Your task to perform on an android device: open app "The Home Depot" (install if not already installed) and enter user name: "taproot@icloud.com" and password: "executions" Image 0: 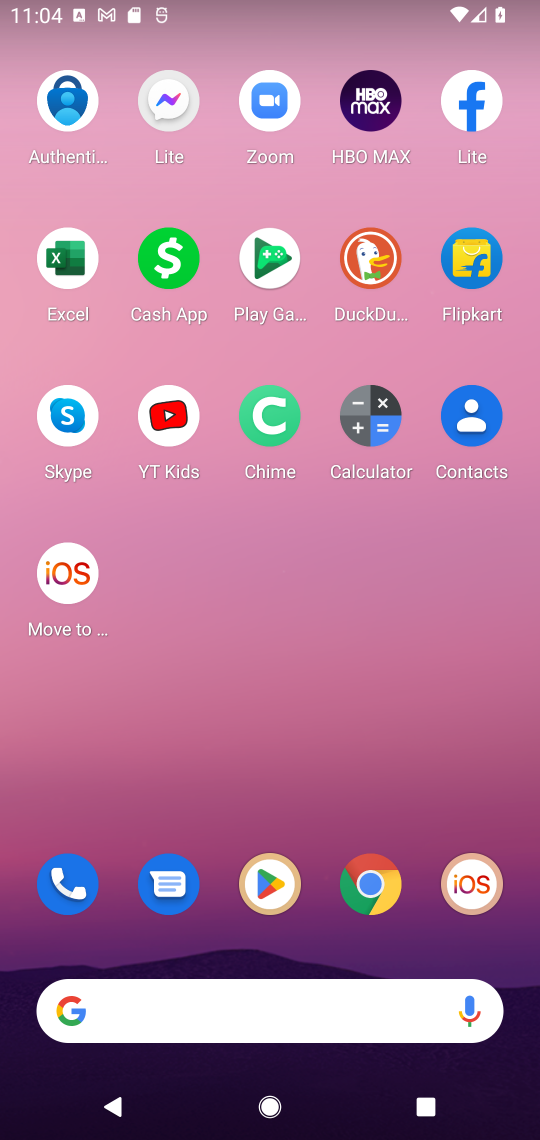
Step 0: press home button
Your task to perform on an android device: open app "The Home Depot" (install if not already installed) and enter user name: "taproot@icloud.com" and password: "executions" Image 1: 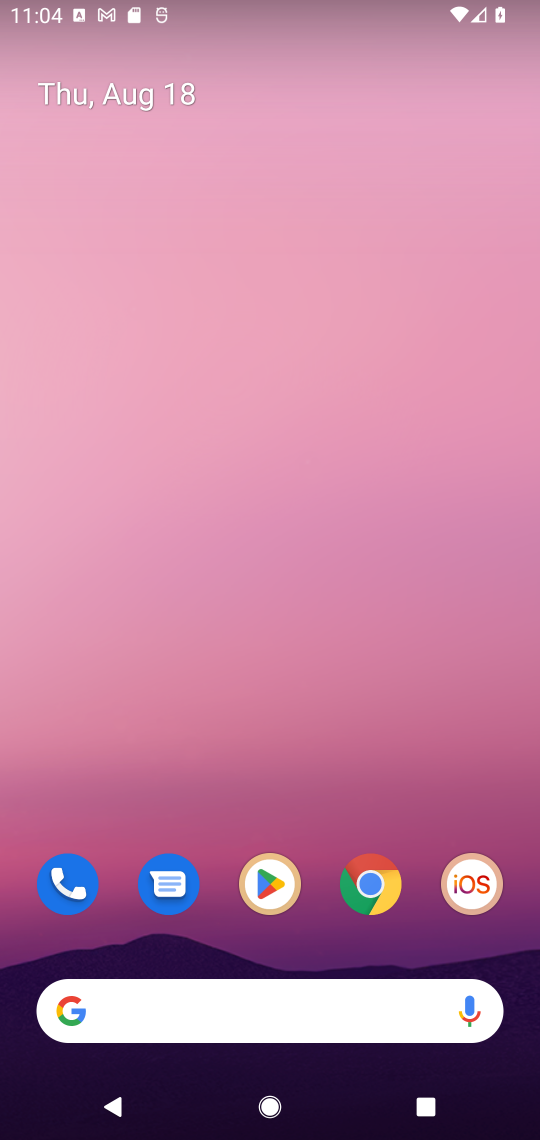
Step 1: drag from (193, 993) to (301, 51)
Your task to perform on an android device: open app "The Home Depot" (install if not already installed) and enter user name: "taproot@icloud.com" and password: "executions" Image 2: 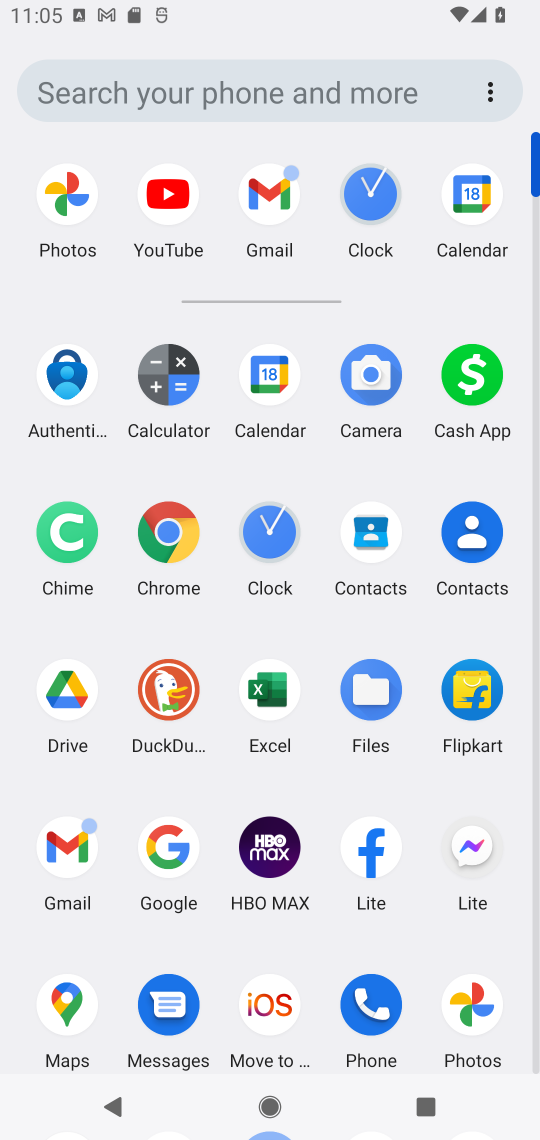
Step 2: drag from (216, 956) to (271, 563)
Your task to perform on an android device: open app "The Home Depot" (install if not already installed) and enter user name: "taproot@icloud.com" and password: "executions" Image 3: 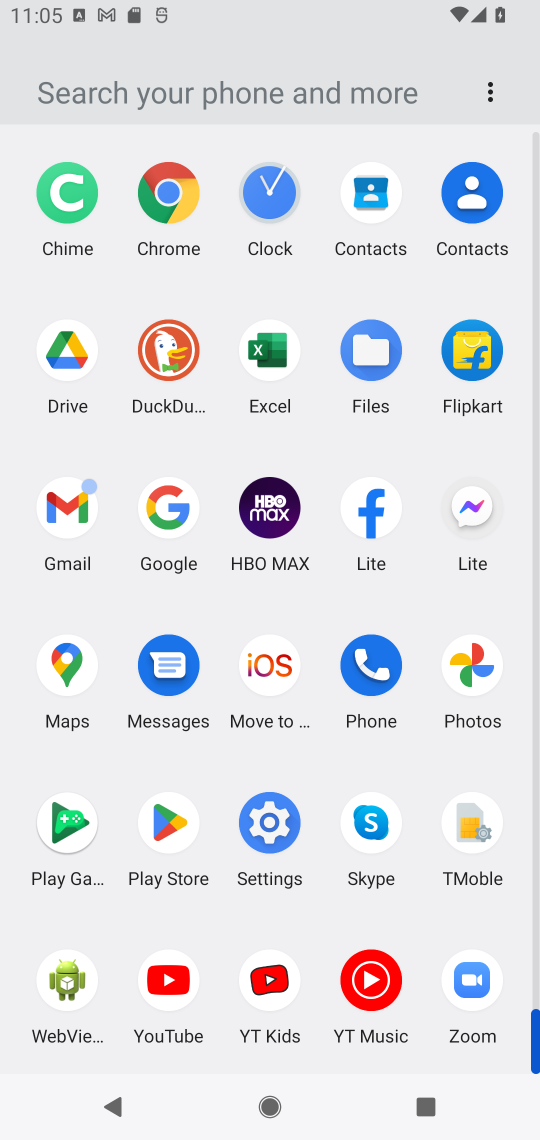
Step 3: click (175, 823)
Your task to perform on an android device: open app "The Home Depot" (install if not already installed) and enter user name: "taproot@icloud.com" and password: "executions" Image 4: 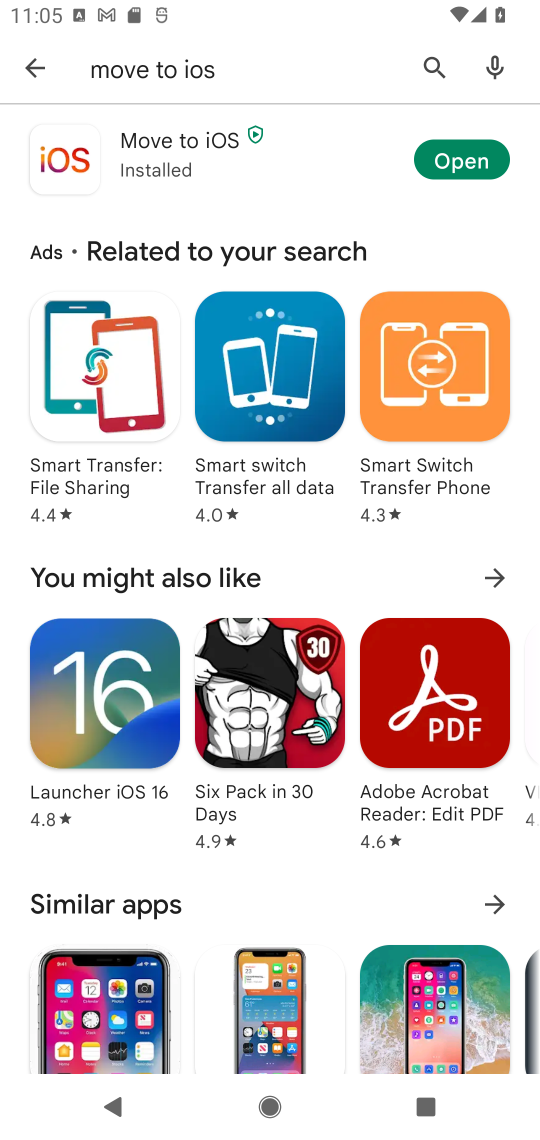
Step 4: press back button
Your task to perform on an android device: open app "The Home Depot" (install if not already installed) and enter user name: "taproot@icloud.com" and password: "executions" Image 5: 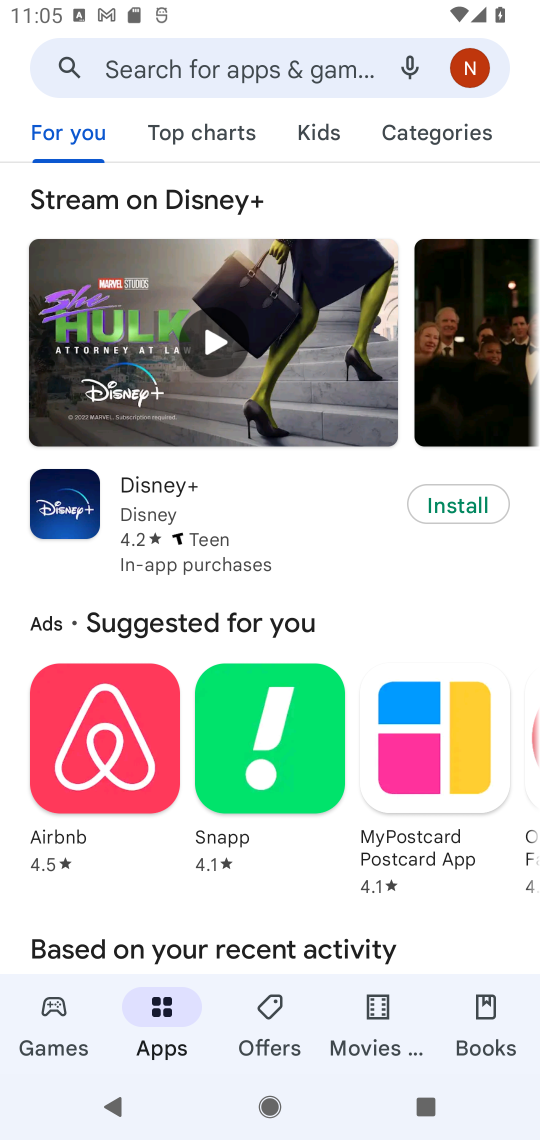
Step 5: click (240, 63)
Your task to perform on an android device: open app "The Home Depot" (install if not already installed) and enter user name: "taproot@icloud.com" and password: "executions" Image 6: 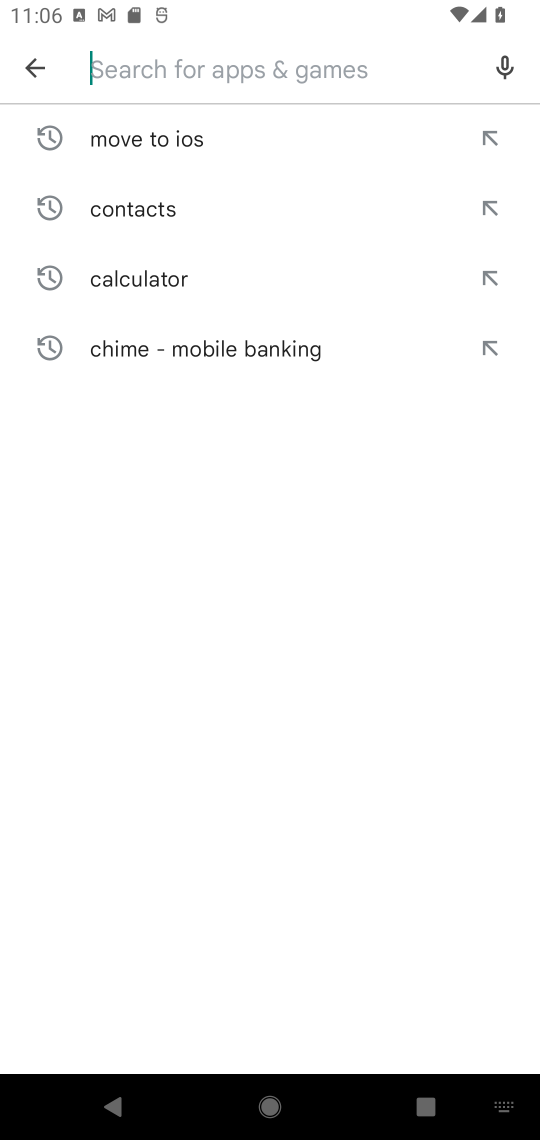
Step 6: type "The Home Depot"
Your task to perform on an android device: open app "The Home Depot" (install if not already installed) and enter user name: "taproot@icloud.com" and password: "executions" Image 7: 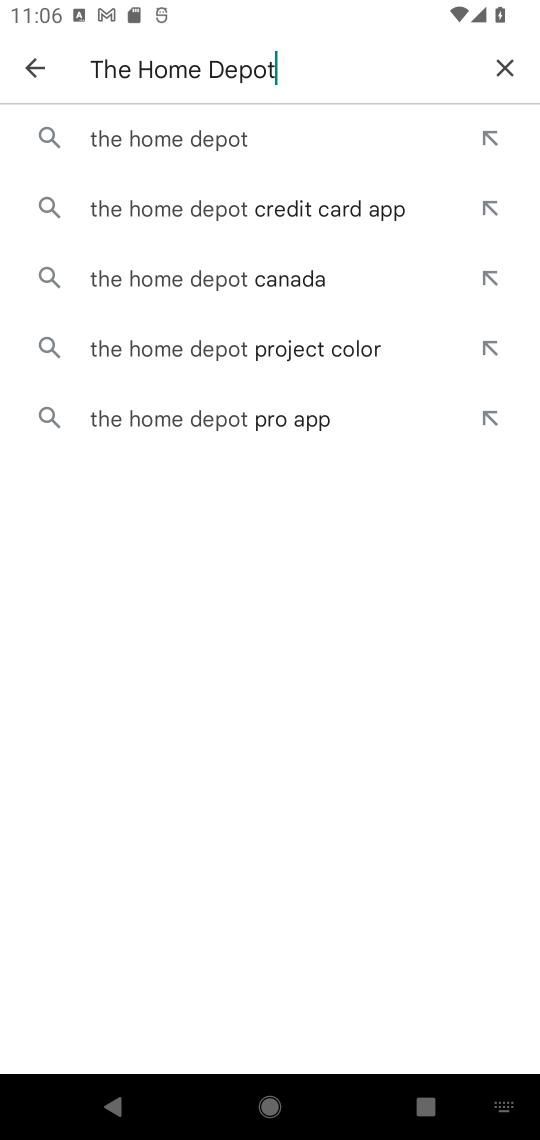
Step 7: click (174, 134)
Your task to perform on an android device: open app "The Home Depot" (install if not already installed) and enter user name: "taproot@icloud.com" and password: "executions" Image 8: 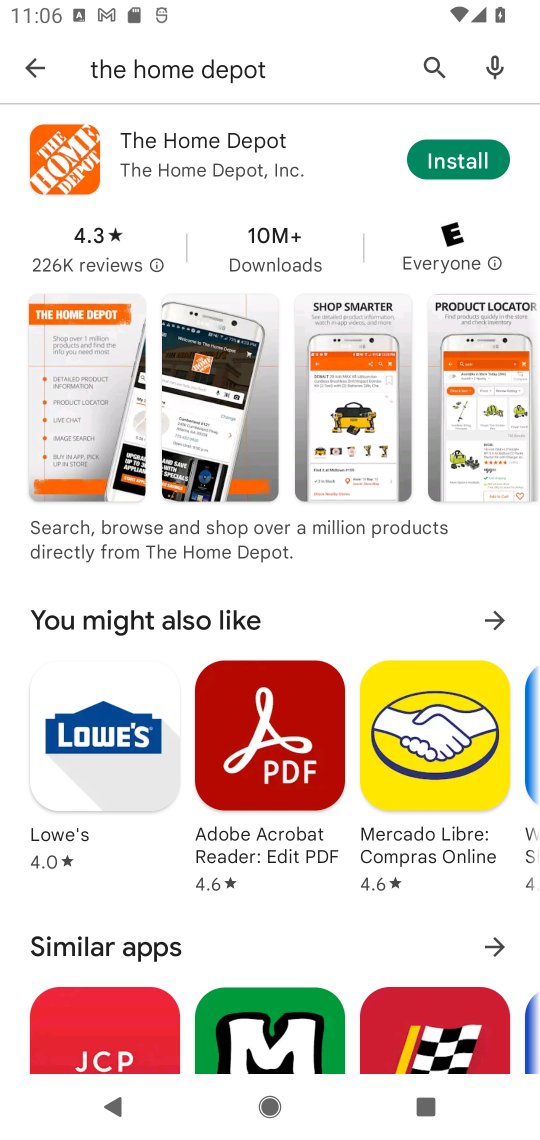
Step 8: click (458, 163)
Your task to perform on an android device: open app "The Home Depot" (install if not already installed) and enter user name: "taproot@icloud.com" and password: "executions" Image 9: 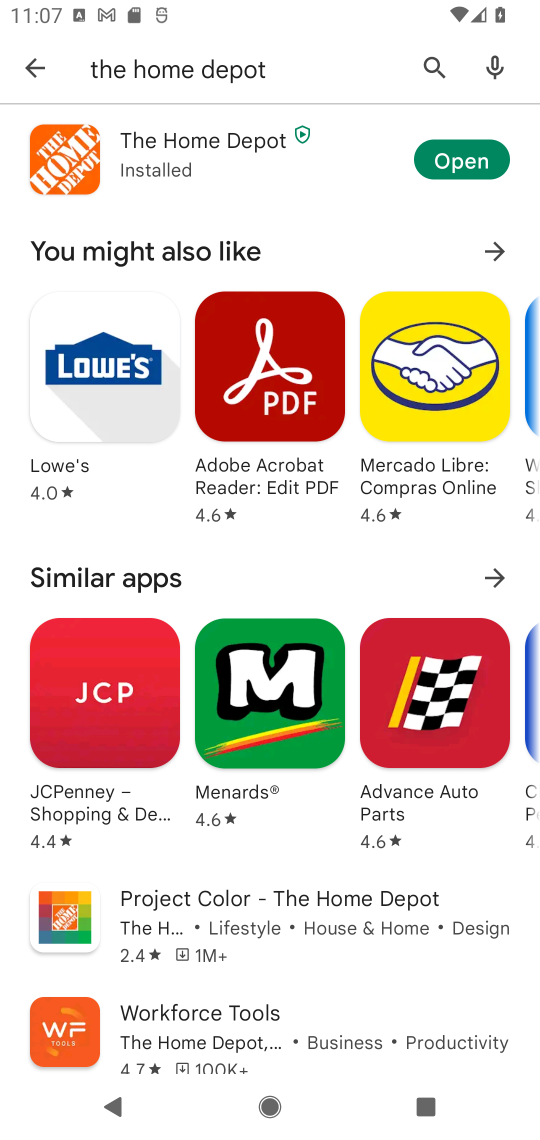
Step 9: click (454, 162)
Your task to perform on an android device: open app "The Home Depot" (install if not already installed) and enter user name: "taproot@icloud.com" and password: "executions" Image 10: 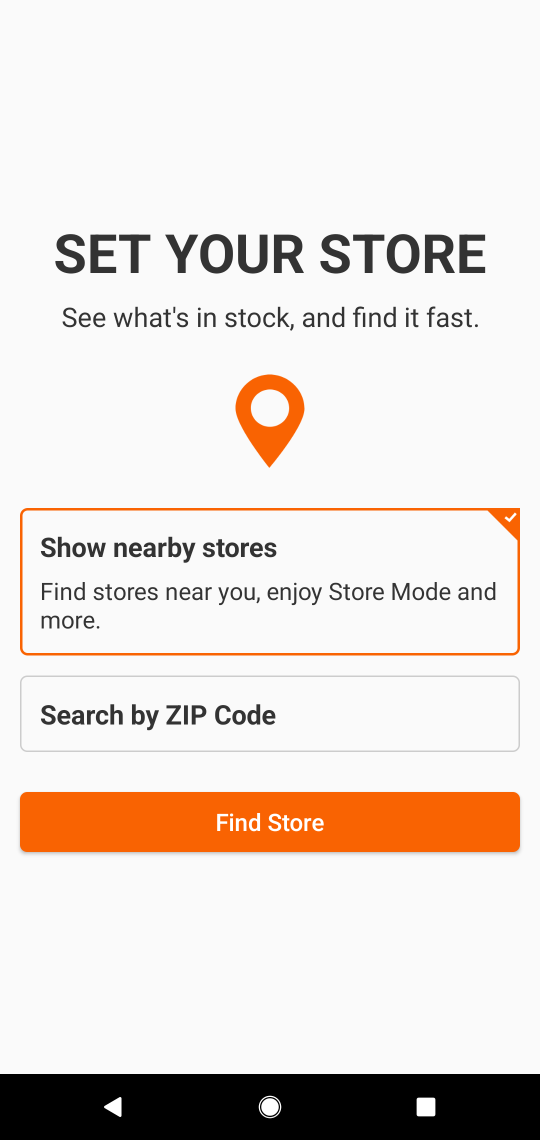
Step 10: click (272, 815)
Your task to perform on an android device: open app "The Home Depot" (install if not already installed) and enter user name: "taproot@icloud.com" and password: "executions" Image 11: 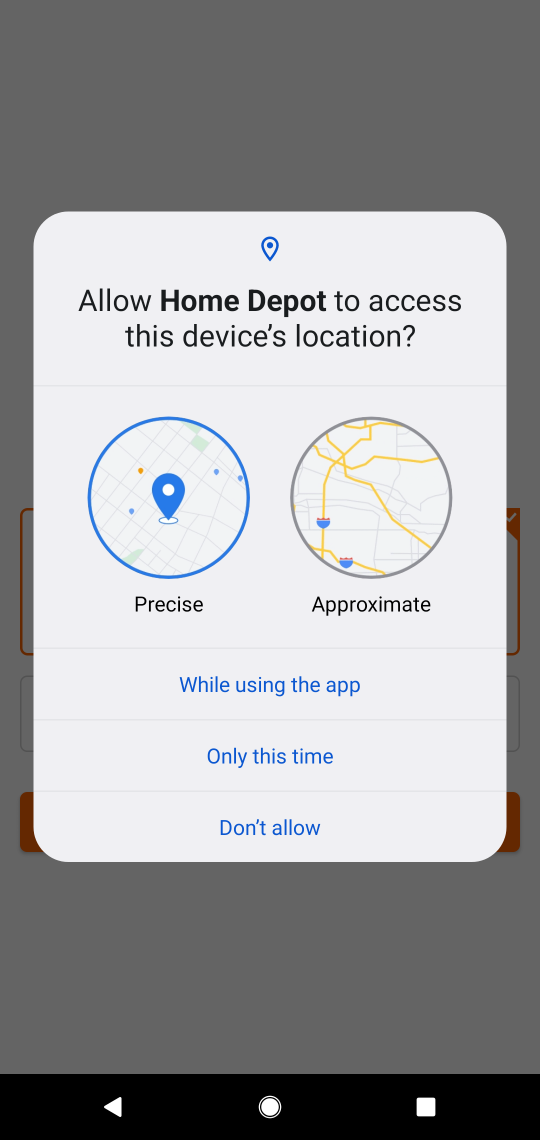
Step 11: click (320, 694)
Your task to perform on an android device: open app "The Home Depot" (install if not already installed) and enter user name: "taproot@icloud.com" and password: "executions" Image 12: 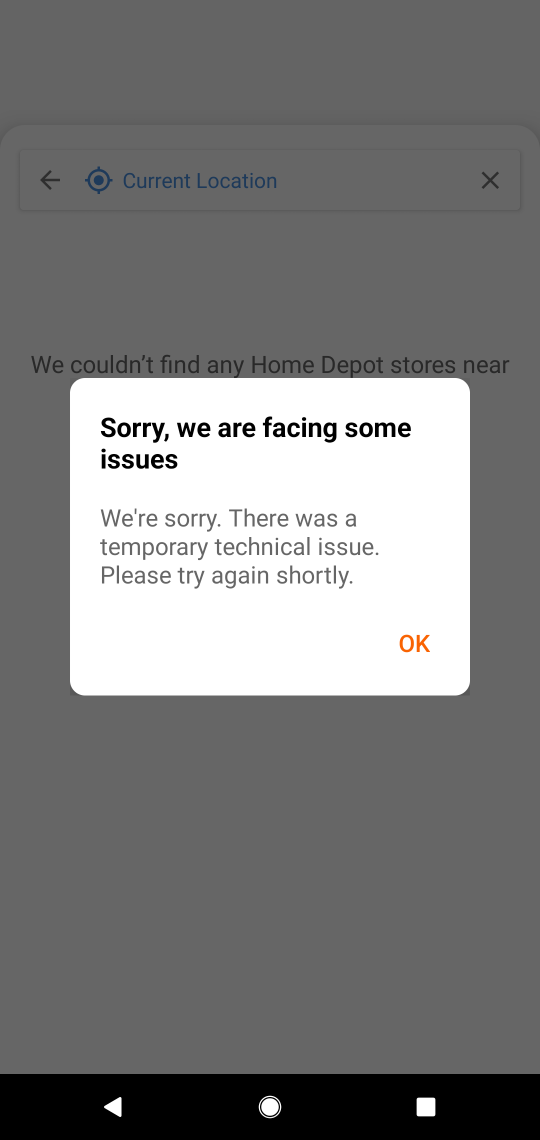
Step 12: click (423, 645)
Your task to perform on an android device: open app "The Home Depot" (install if not already installed) and enter user name: "taproot@icloud.com" and password: "executions" Image 13: 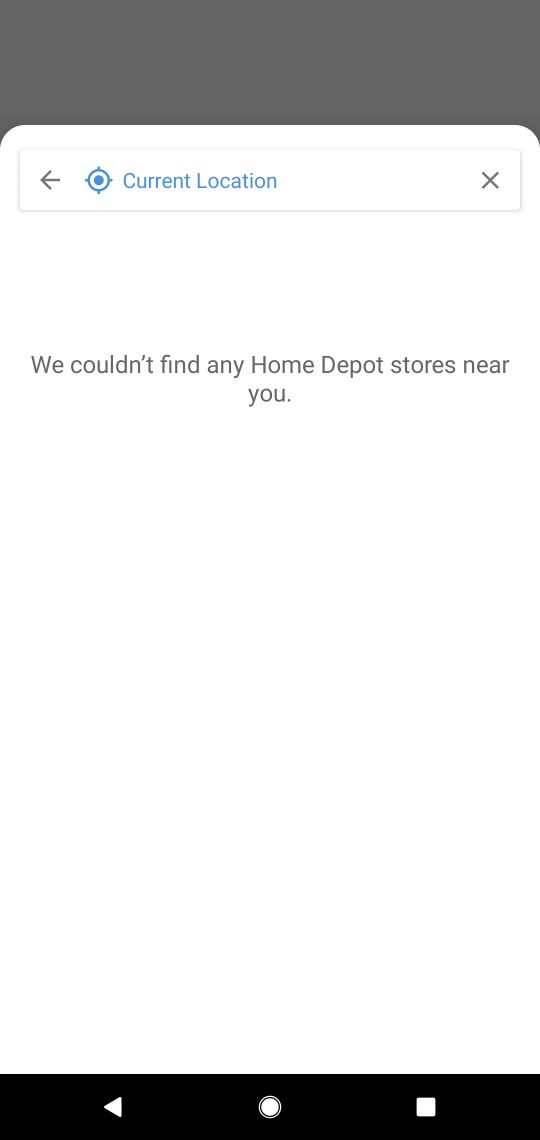
Step 13: click (201, 194)
Your task to perform on an android device: open app "The Home Depot" (install if not already installed) and enter user name: "taproot@icloud.com" and password: "executions" Image 14: 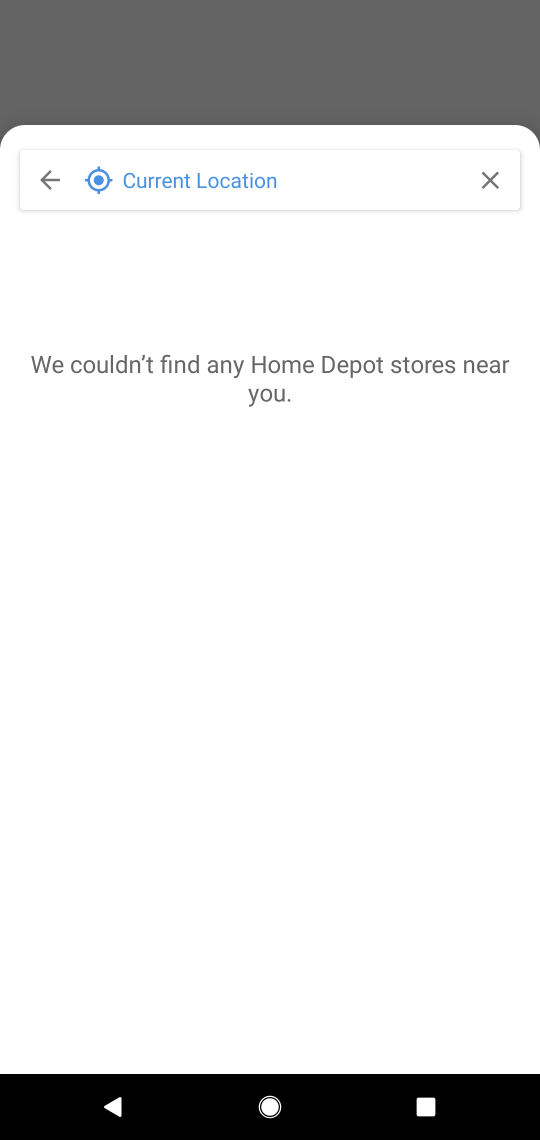
Step 14: click (201, 195)
Your task to perform on an android device: open app "The Home Depot" (install if not already installed) and enter user name: "taproot@icloud.com" and password: "executions" Image 15: 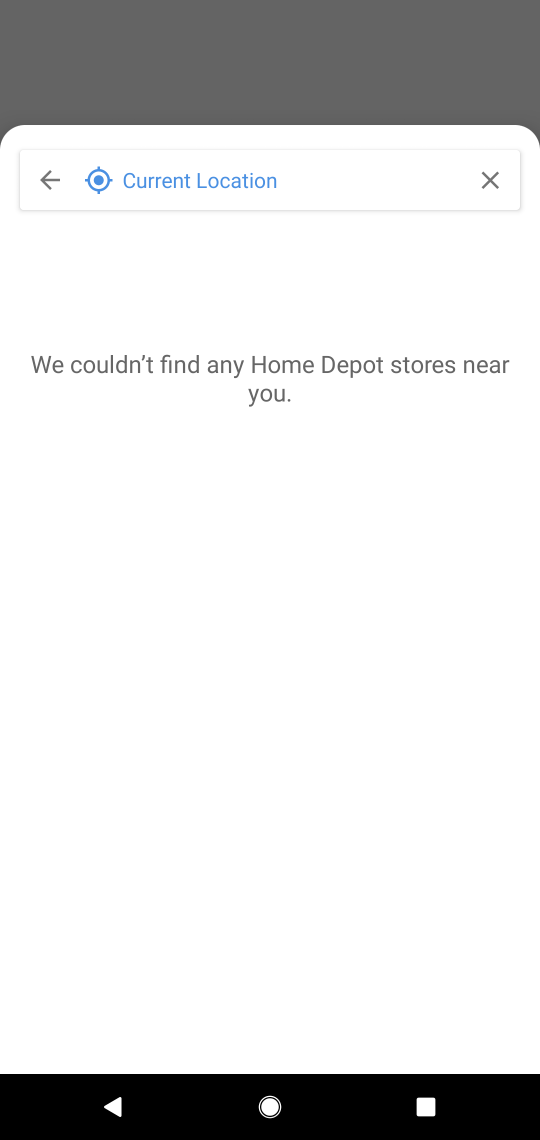
Step 15: click (405, 369)
Your task to perform on an android device: open app "The Home Depot" (install if not already installed) and enter user name: "taproot@icloud.com" and password: "executions" Image 16: 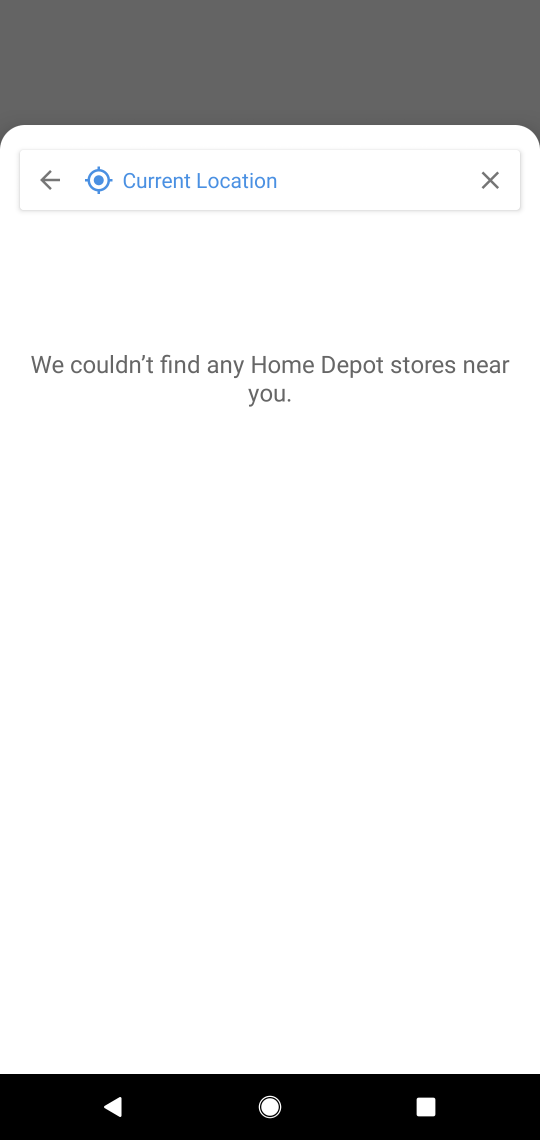
Step 16: press back button
Your task to perform on an android device: open app "The Home Depot" (install if not already installed) and enter user name: "taproot@icloud.com" and password: "executions" Image 17: 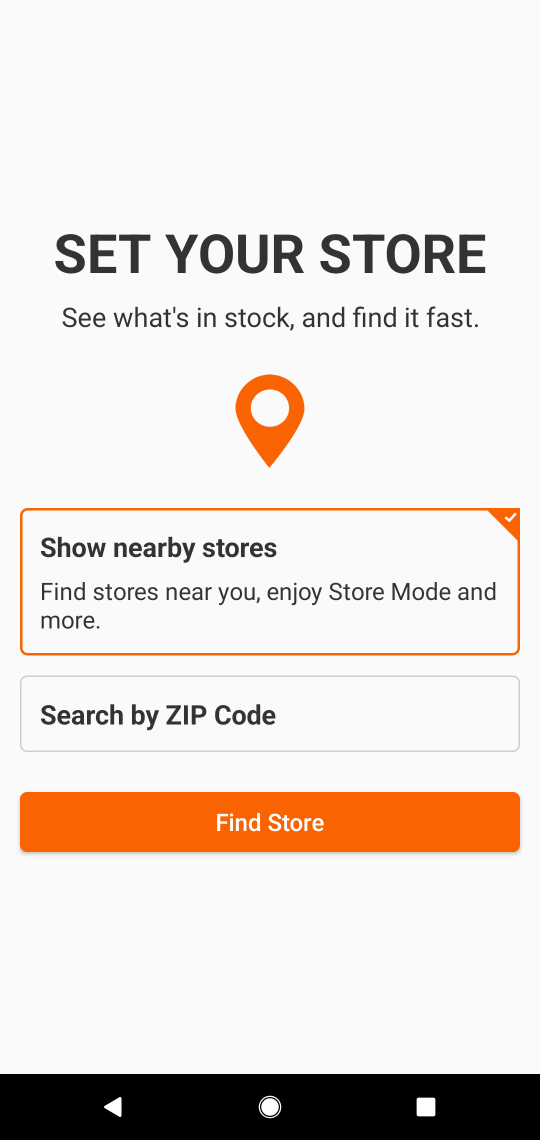
Step 17: click (248, 729)
Your task to perform on an android device: open app "The Home Depot" (install if not already installed) and enter user name: "taproot@icloud.com" and password: "executions" Image 18: 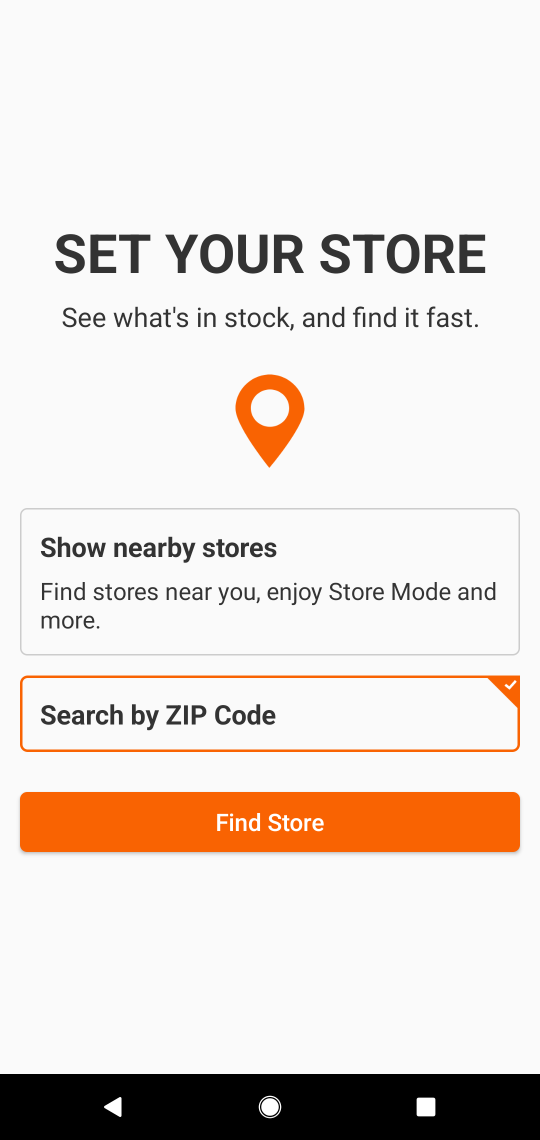
Step 18: click (267, 813)
Your task to perform on an android device: open app "The Home Depot" (install if not already installed) and enter user name: "taproot@icloud.com" and password: "executions" Image 19: 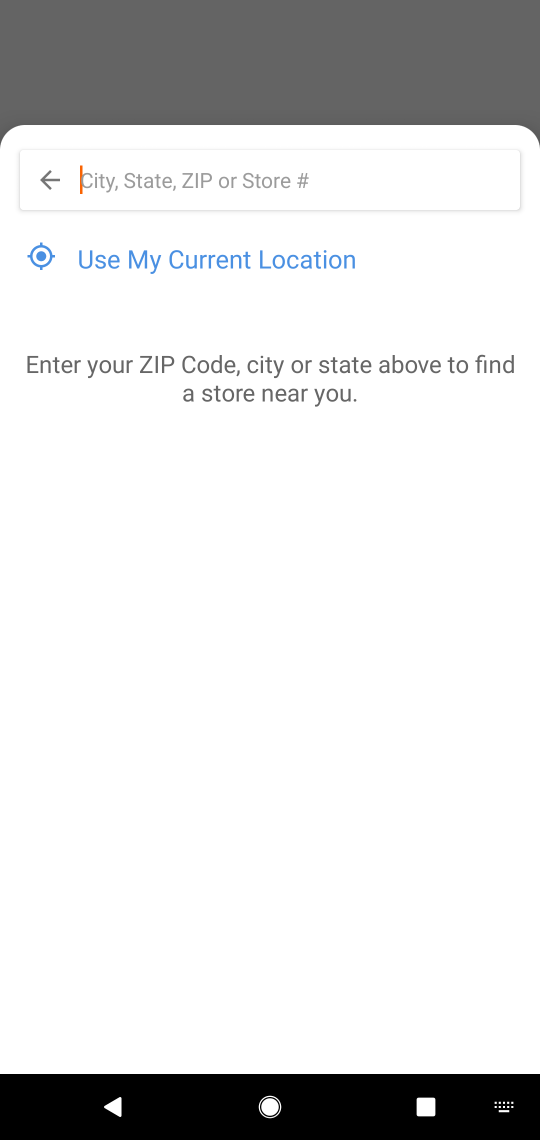
Step 19: click (313, 249)
Your task to perform on an android device: open app "The Home Depot" (install if not already installed) and enter user name: "taproot@icloud.com" and password: "executions" Image 20: 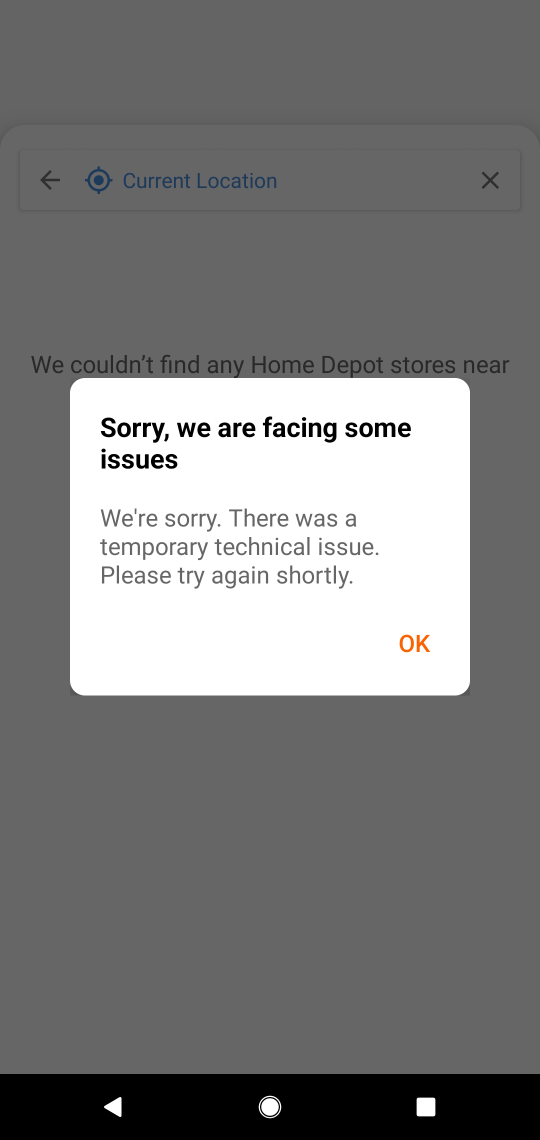
Step 20: click (417, 633)
Your task to perform on an android device: open app "The Home Depot" (install if not already installed) and enter user name: "taproot@icloud.com" and password: "executions" Image 21: 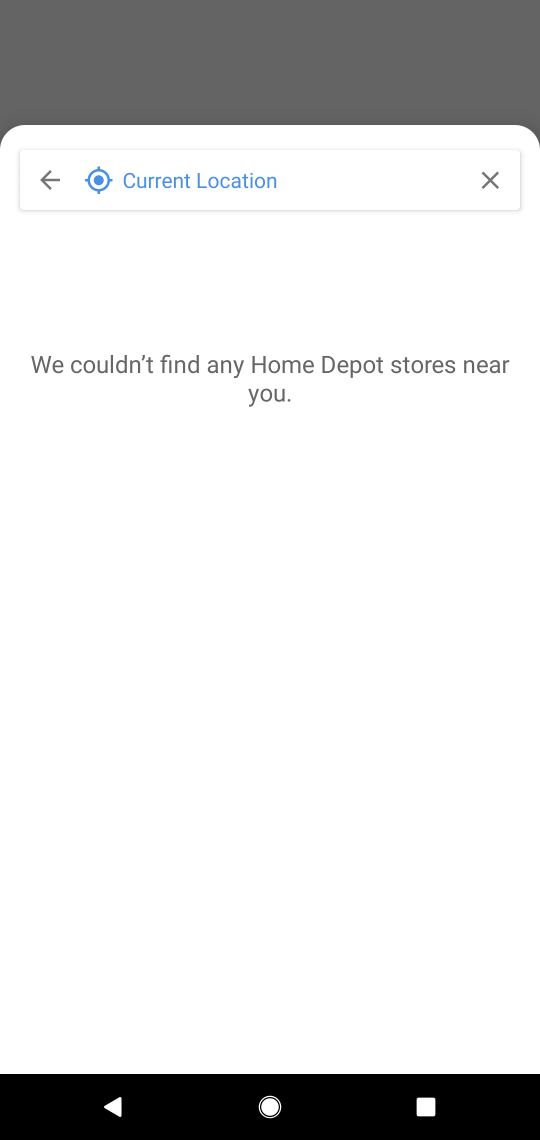
Step 21: click (250, 183)
Your task to perform on an android device: open app "The Home Depot" (install if not already installed) and enter user name: "taproot@icloud.com" and password: "executions" Image 22: 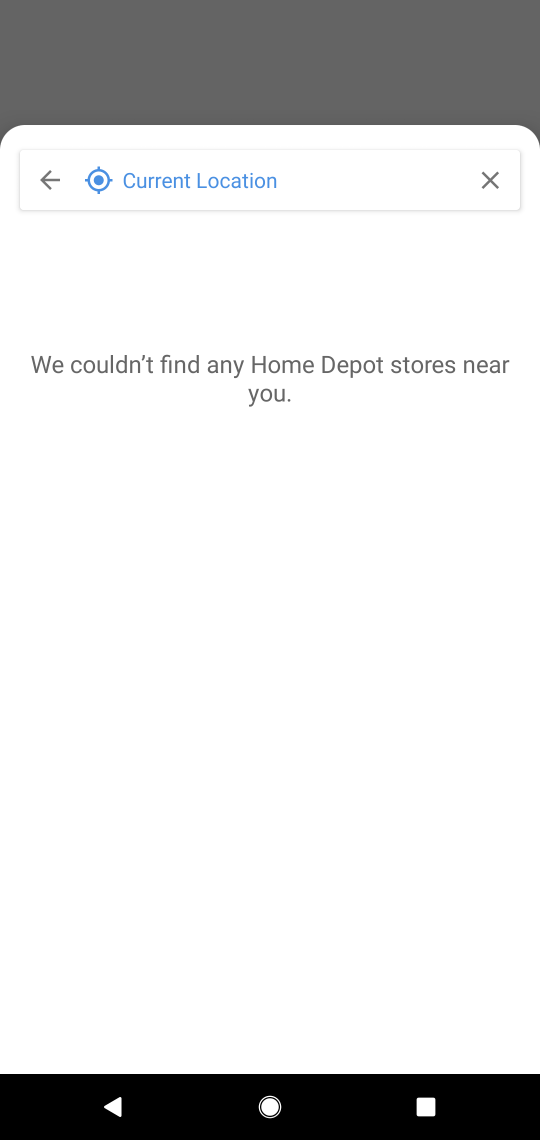
Step 22: task complete